Your task to perform on an android device: Open Reddit.com Image 0: 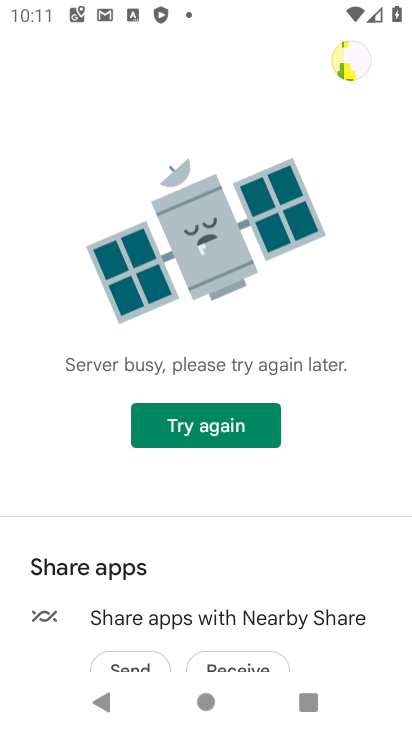
Step 0: press home button
Your task to perform on an android device: Open Reddit.com Image 1: 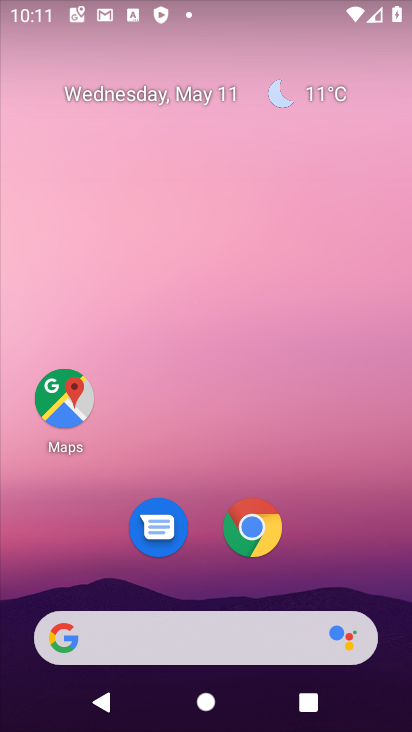
Step 1: drag from (361, 536) to (365, 29)
Your task to perform on an android device: Open Reddit.com Image 2: 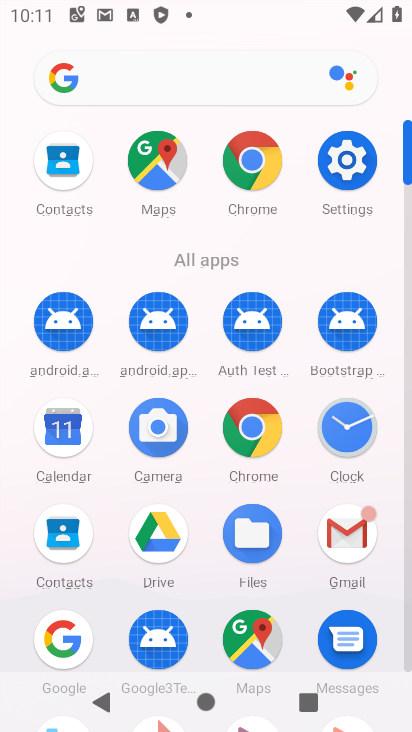
Step 2: click (236, 151)
Your task to perform on an android device: Open Reddit.com Image 3: 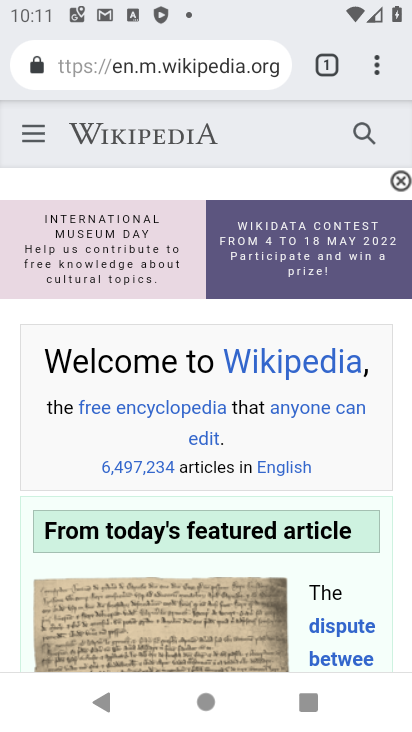
Step 3: click (209, 66)
Your task to perform on an android device: Open Reddit.com Image 4: 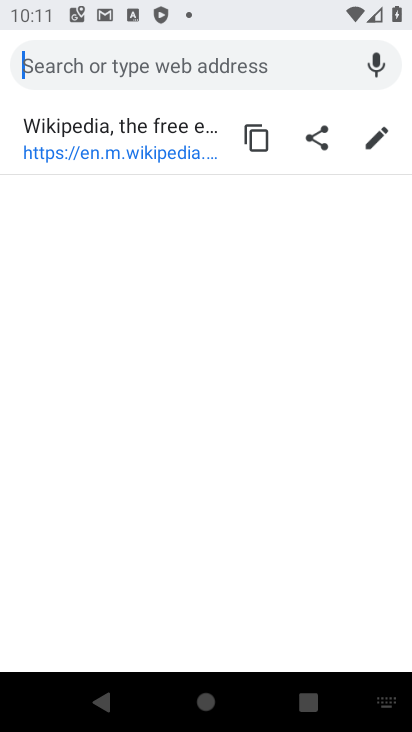
Step 4: type "reddit.com"
Your task to perform on an android device: Open Reddit.com Image 5: 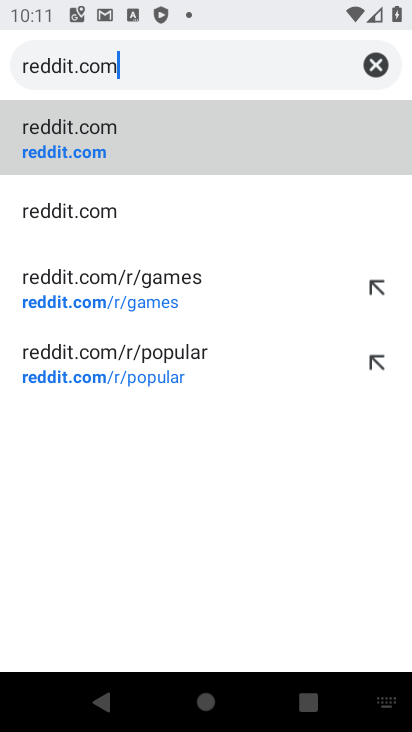
Step 5: click (47, 131)
Your task to perform on an android device: Open Reddit.com Image 6: 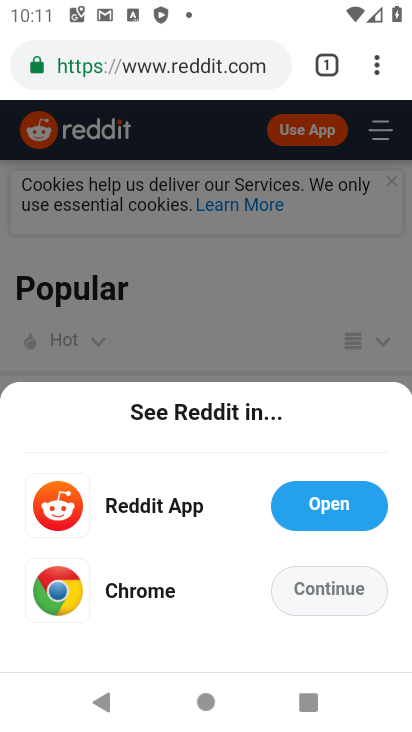
Step 6: task complete